Your task to perform on an android device: Search for pizza restaurants on Maps Image 0: 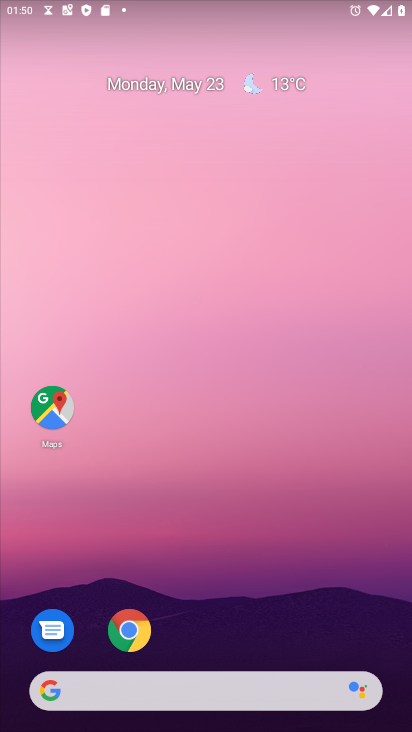
Step 0: click (60, 421)
Your task to perform on an android device: Search for pizza restaurants on Maps Image 1: 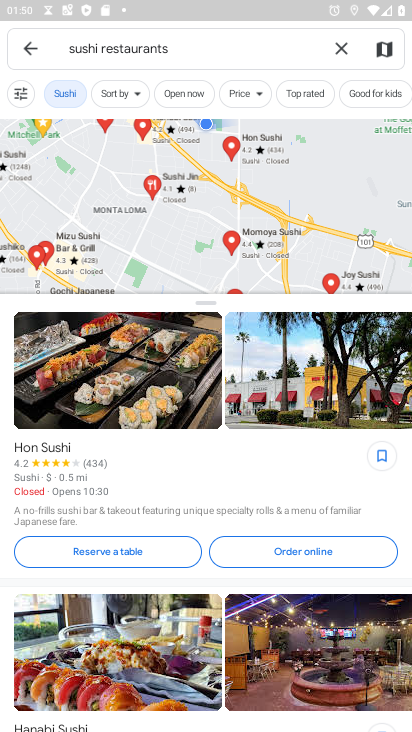
Step 1: click (349, 44)
Your task to perform on an android device: Search for pizza restaurants on Maps Image 2: 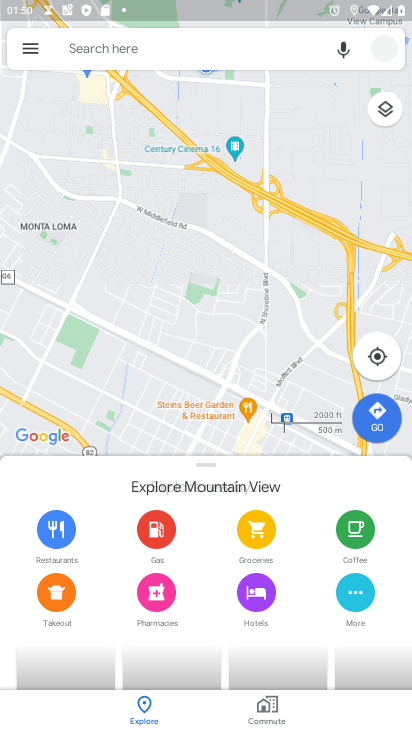
Step 2: click (275, 49)
Your task to perform on an android device: Search for pizza restaurants on Maps Image 3: 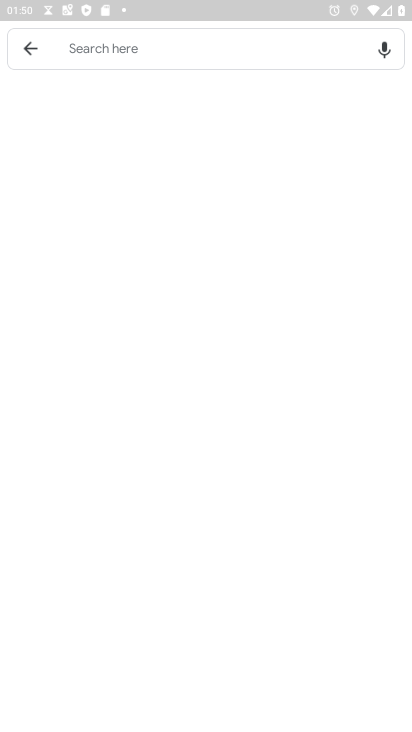
Step 3: click (148, 52)
Your task to perform on an android device: Search for pizza restaurants on Maps Image 4: 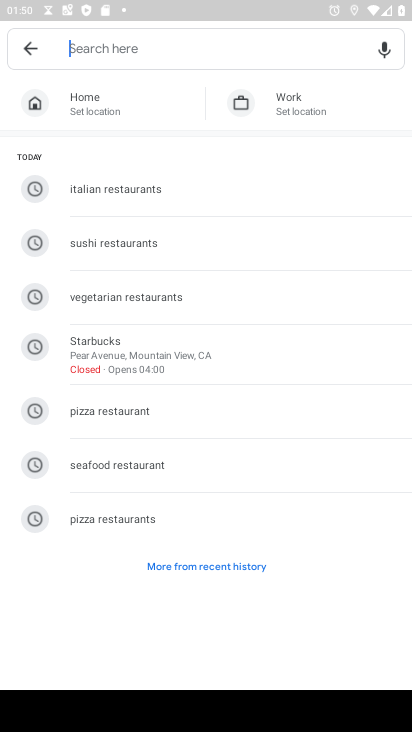
Step 4: click (140, 408)
Your task to perform on an android device: Search for pizza restaurants on Maps Image 5: 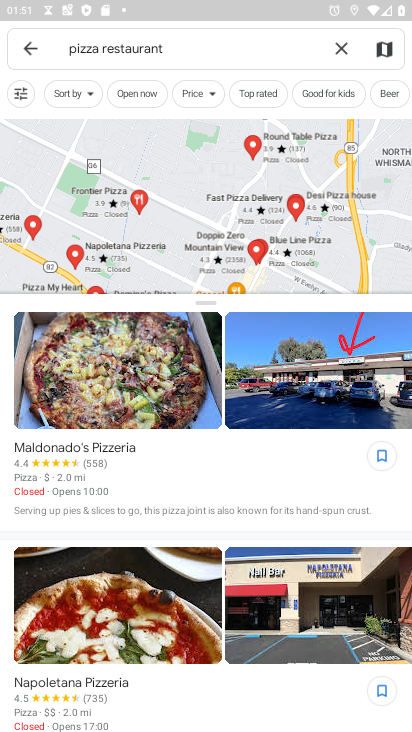
Step 5: task complete